Your task to perform on an android device: visit the assistant section in the google photos Image 0: 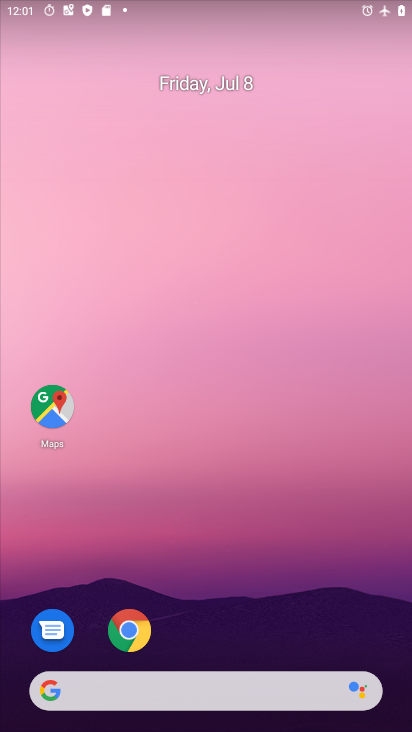
Step 0: drag from (188, 623) to (197, 109)
Your task to perform on an android device: visit the assistant section in the google photos Image 1: 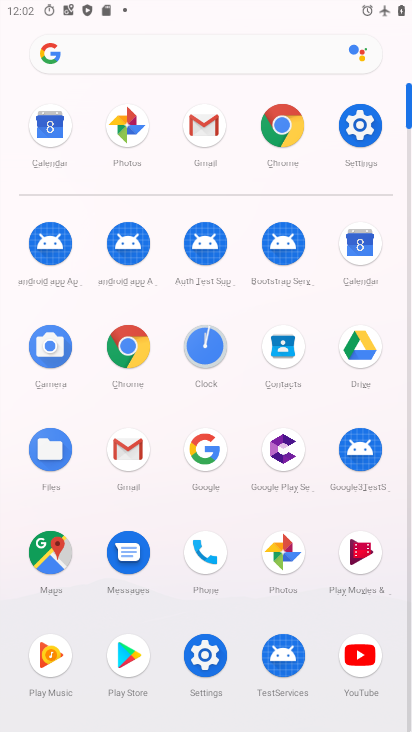
Step 1: click (114, 119)
Your task to perform on an android device: visit the assistant section in the google photos Image 2: 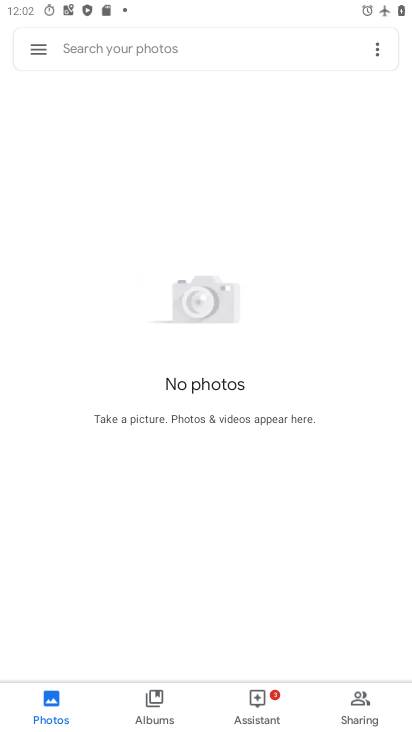
Step 2: click (259, 695)
Your task to perform on an android device: visit the assistant section in the google photos Image 3: 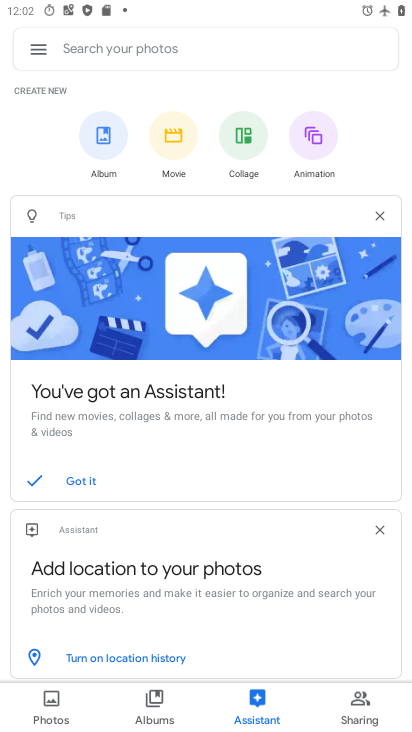
Step 3: task complete